Your task to perform on an android device: Open Google Maps Image 0: 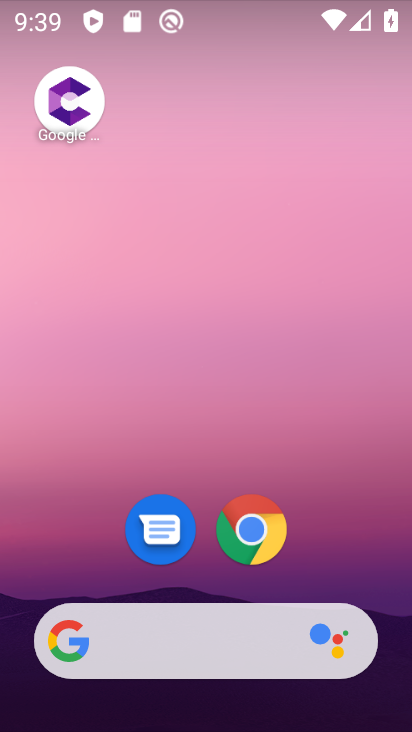
Step 0: drag from (78, 493) to (134, 32)
Your task to perform on an android device: Open Google Maps Image 1: 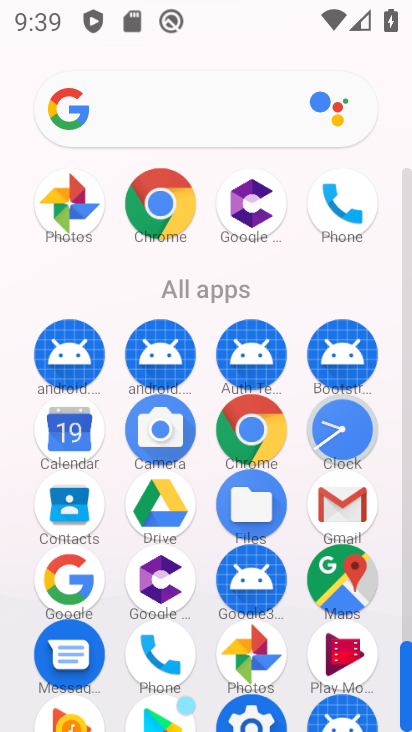
Step 1: click (334, 586)
Your task to perform on an android device: Open Google Maps Image 2: 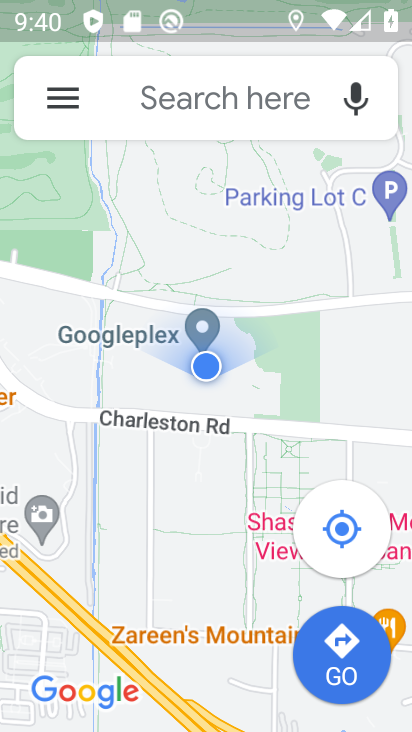
Step 2: task complete